Your task to perform on an android device: Go to CNN.com Image 0: 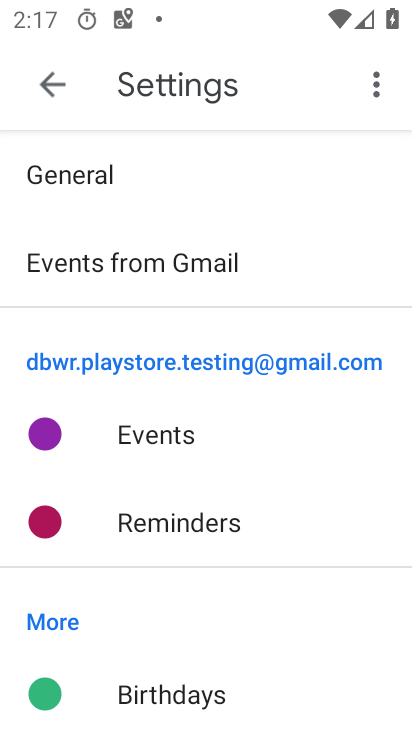
Step 0: press home button
Your task to perform on an android device: Go to CNN.com Image 1: 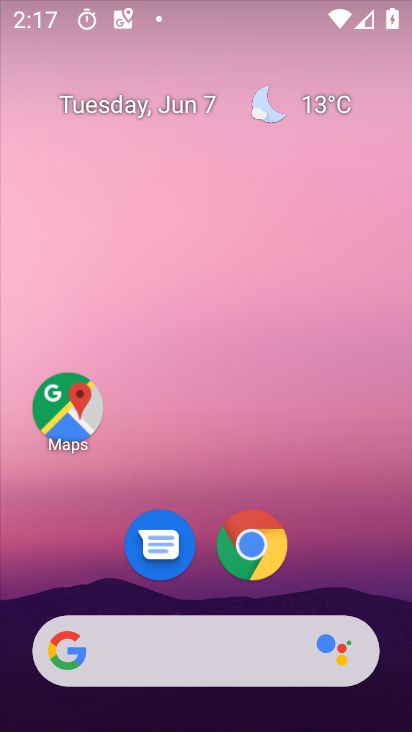
Step 1: click (261, 560)
Your task to perform on an android device: Go to CNN.com Image 2: 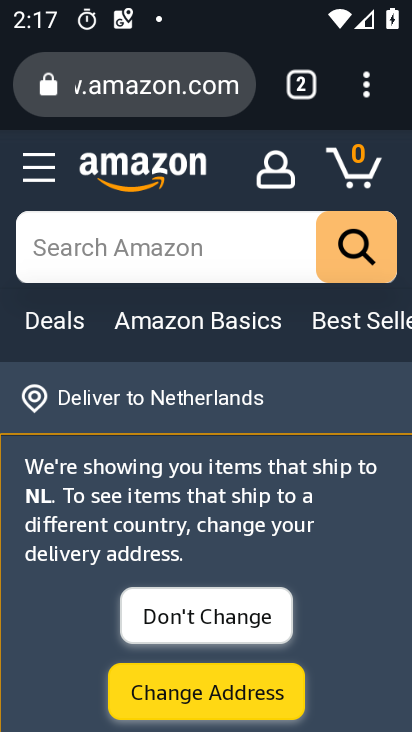
Step 2: click (307, 87)
Your task to perform on an android device: Go to CNN.com Image 3: 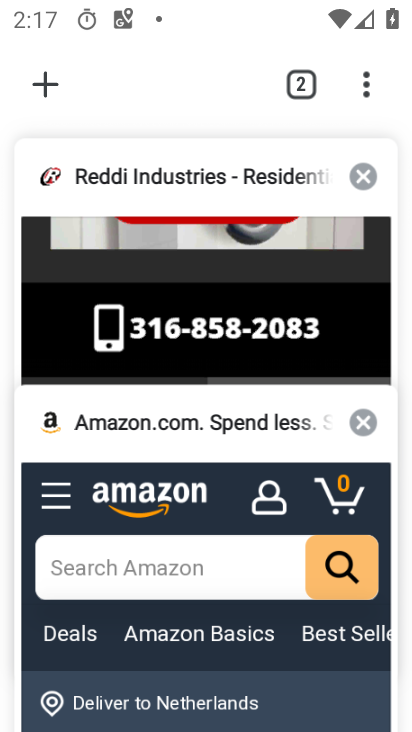
Step 3: click (118, 176)
Your task to perform on an android device: Go to CNN.com Image 4: 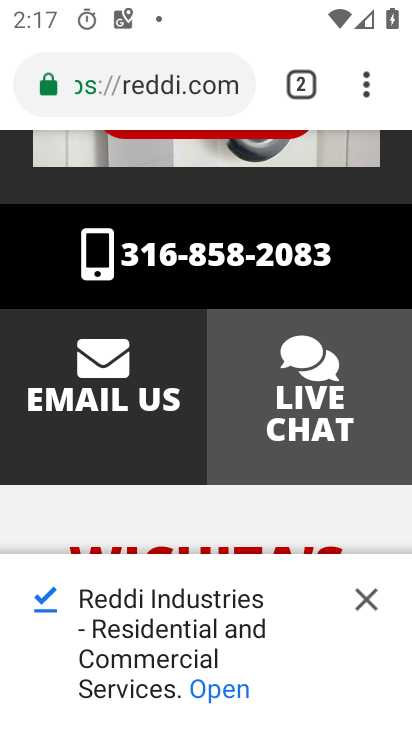
Step 4: click (138, 76)
Your task to perform on an android device: Go to CNN.com Image 5: 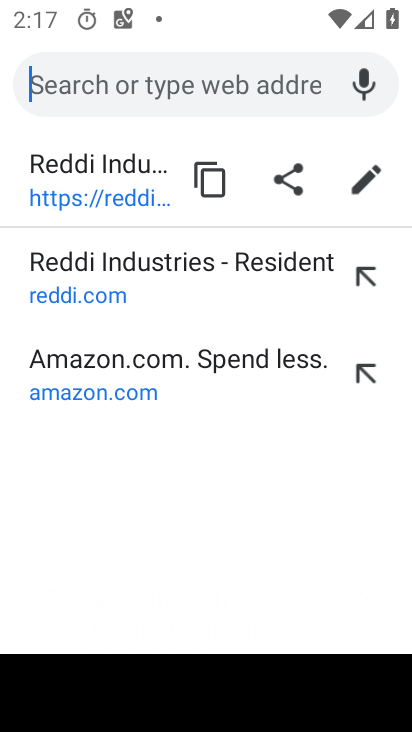
Step 5: type "CNN.com"
Your task to perform on an android device: Go to CNN.com Image 6: 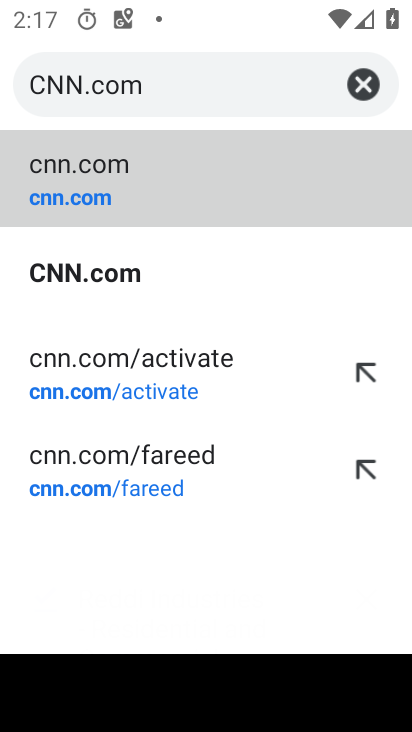
Step 6: click (178, 184)
Your task to perform on an android device: Go to CNN.com Image 7: 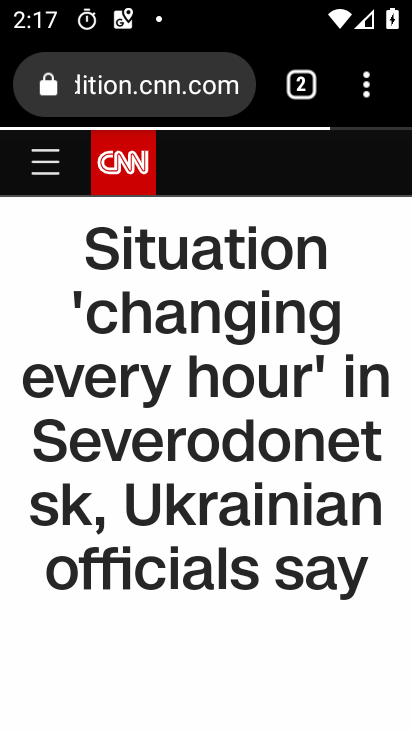
Step 7: task complete